Your task to perform on an android device: check android version Image 0: 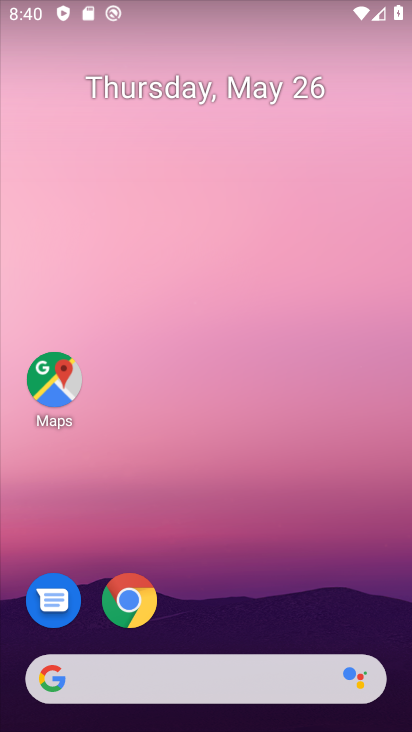
Step 0: drag from (202, 629) to (291, 51)
Your task to perform on an android device: check android version Image 1: 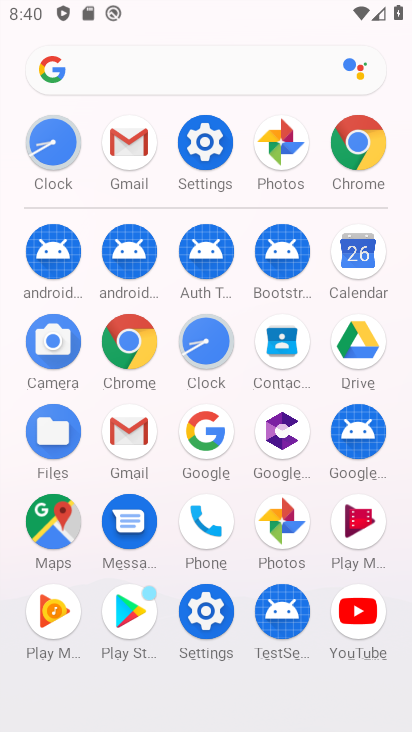
Step 1: click (203, 145)
Your task to perform on an android device: check android version Image 2: 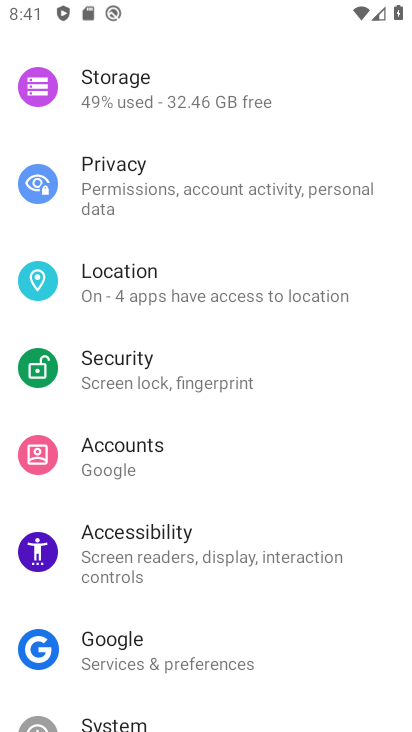
Step 2: drag from (177, 677) to (248, 259)
Your task to perform on an android device: check android version Image 3: 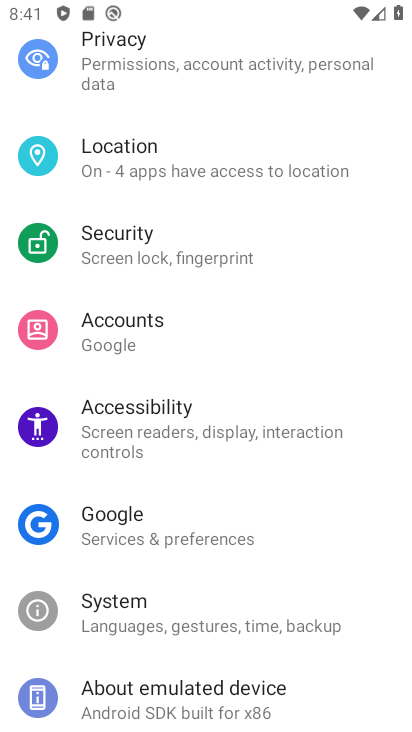
Step 3: click (153, 712)
Your task to perform on an android device: check android version Image 4: 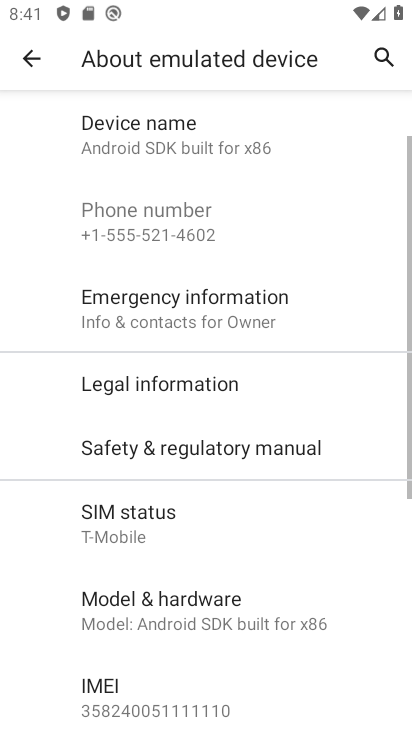
Step 4: drag from (153, 712) to (158, 313)
Your task to perform on an android device: check android version Image 5: 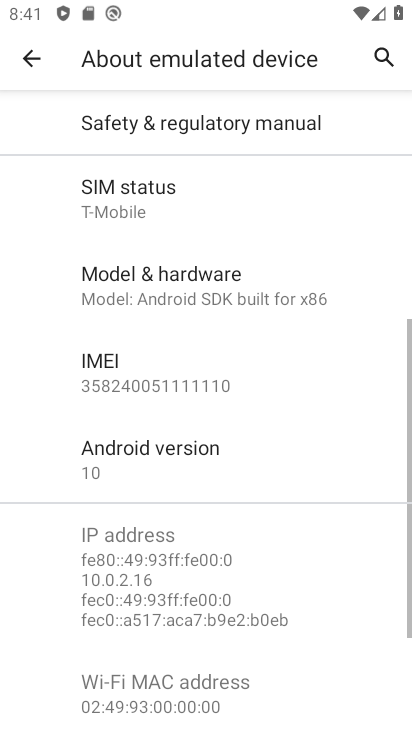
Step 5: click (140, 472)
Your task to perform on an android device: check android version Image 6: 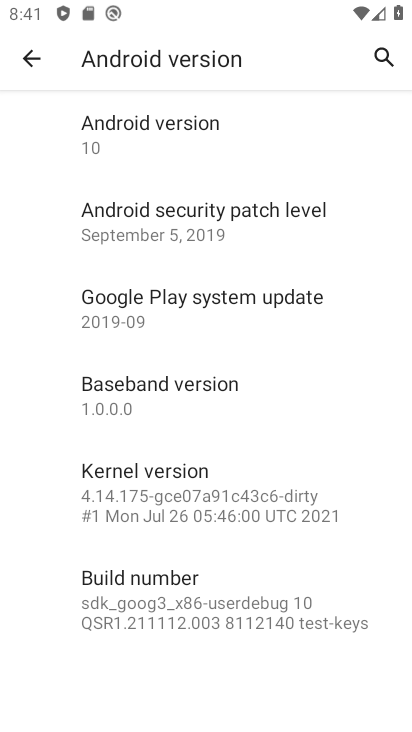
Step 6: task complete